Your task to perform on an android device: delete browsing data in the chrome app Image 0: 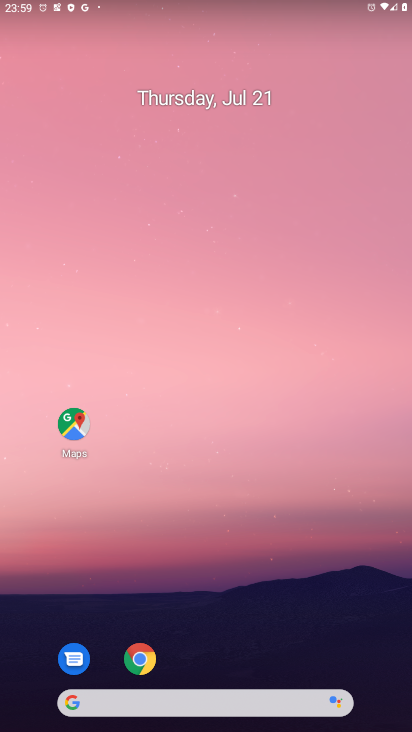
Step 0: click (144, 660)
Your task to perform on an android device: delete browsing data in the chrome app Image 1: 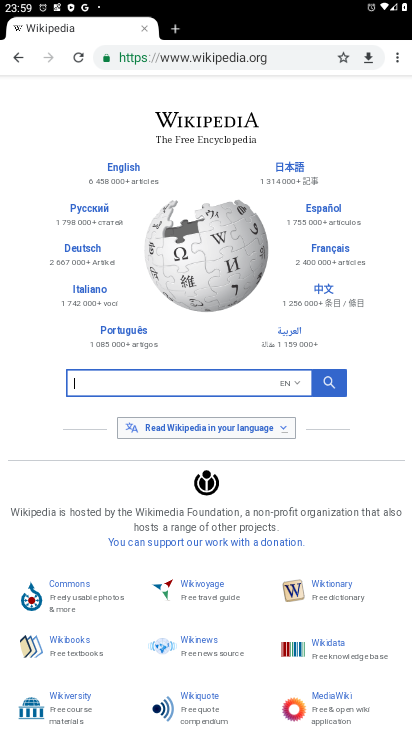
Step 1: click (398, 57)
Your task to perform on an android device: delete browsing data in the chrome app Image 2: 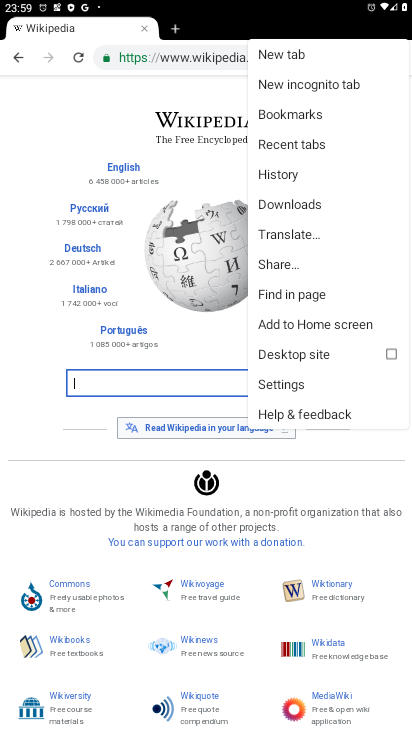
Step 2: click (290, 377)
Your task to perform on an android device: delete browsing data in the chrome app Image 3: 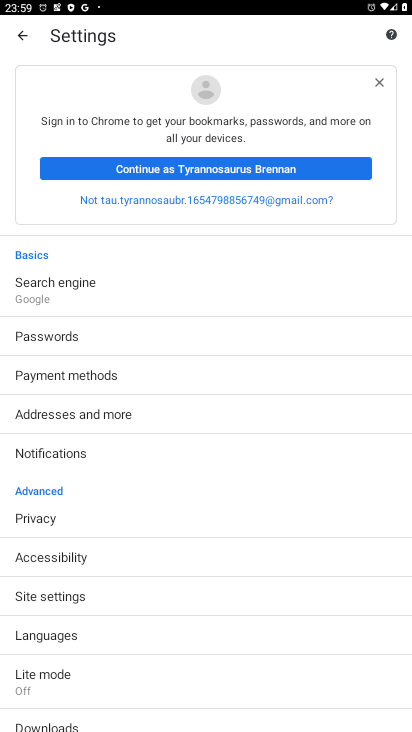
Step 3: click (43, 516)
Your task to perform on an android device: delete browsing data in the chrome app Image 4: 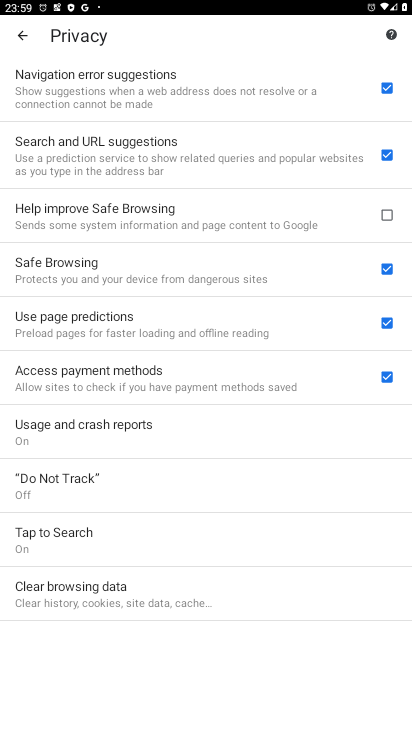
Step 4: click (74, 589)
Your task to perform on an android device: delete browsing data in the chrome app Image 5: 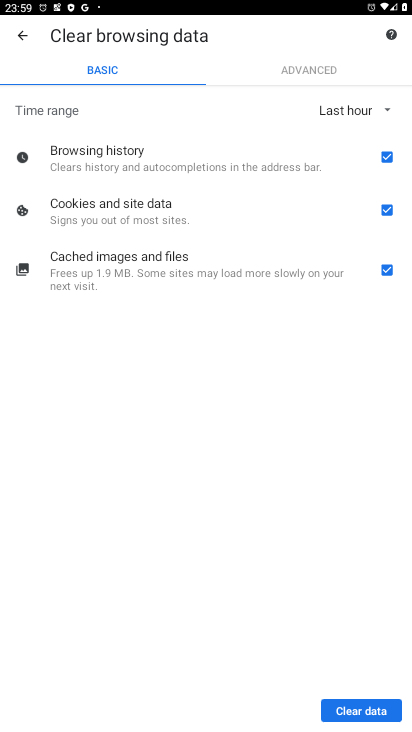
Step 5: click (370, 705)
Your task to perform on an android device: delete browsing data in the chrome app Image 6: 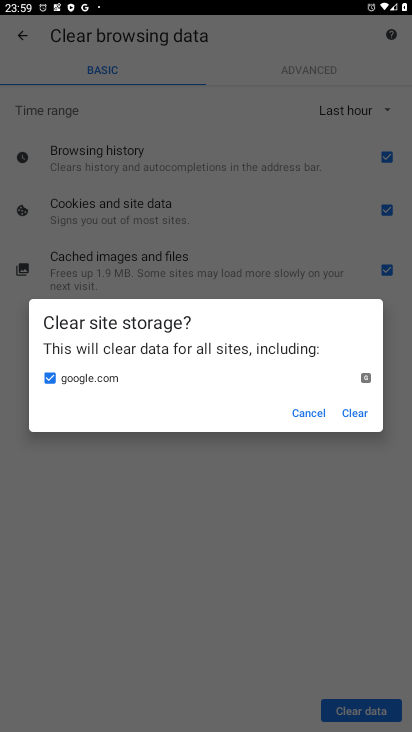
Step 6: click (359, 409)
Your task to perform on an android device: delete browsing data in the chrome app Image 7: 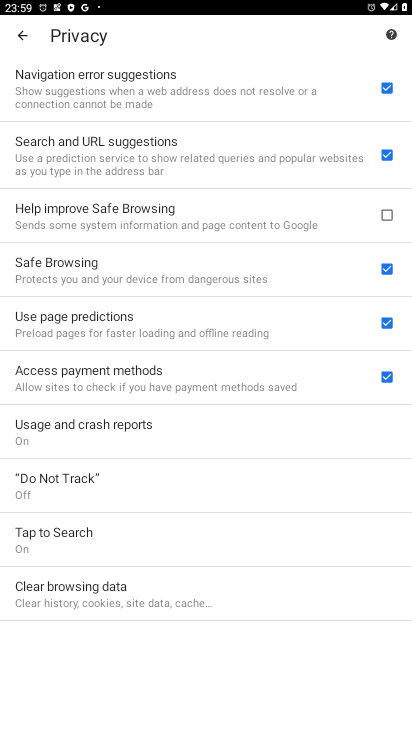
Step 7: task complete